Your task to perform on an android device: Open Google Maps Image 0: 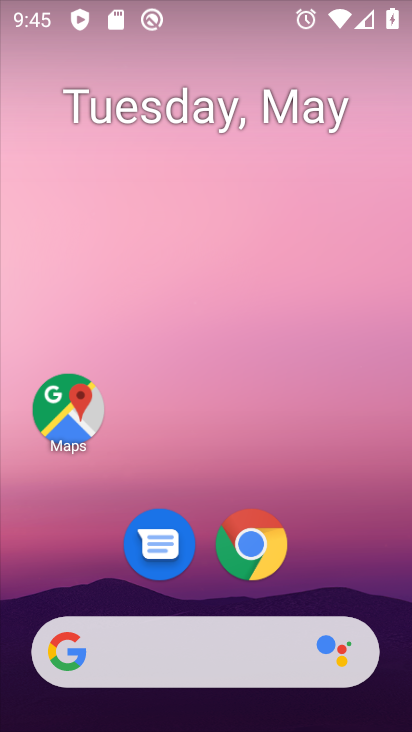
Step 0: drag from (374, 549) to (363, 224)
Your task to perform on an android device: Open Google Maps Image 1: 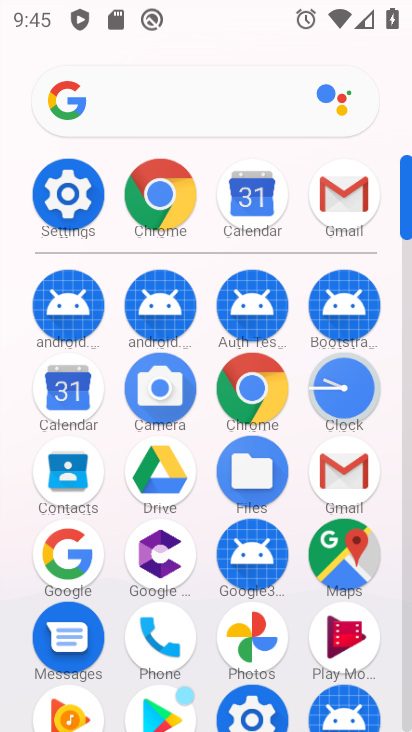
Step 1: drag from (191, 625) to (235, 363)
Your task to perform on an android device: Open Google Maps Image 2: 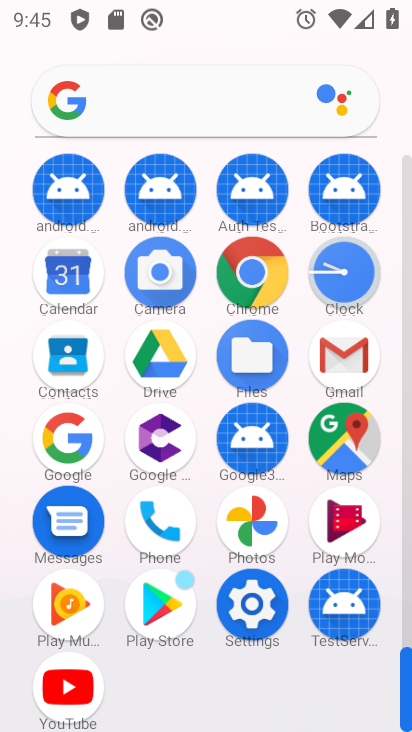
Step 2: click (349, 443)
Your task to perform on an android device: Open Google Maps Image 3: 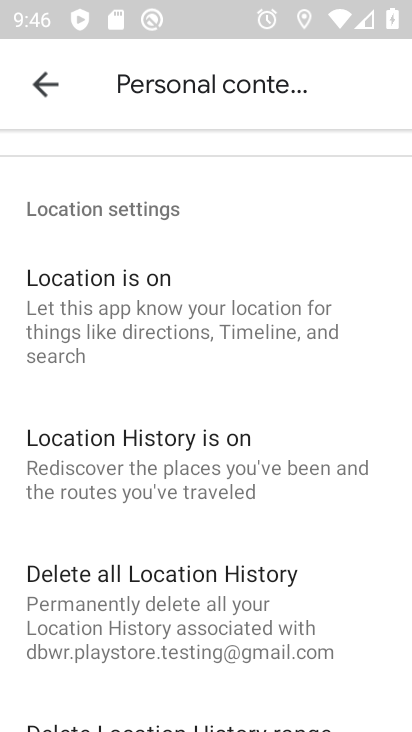
Step 3: task complete